Your task to perform on an android device: turn on airplane mode Image 0: 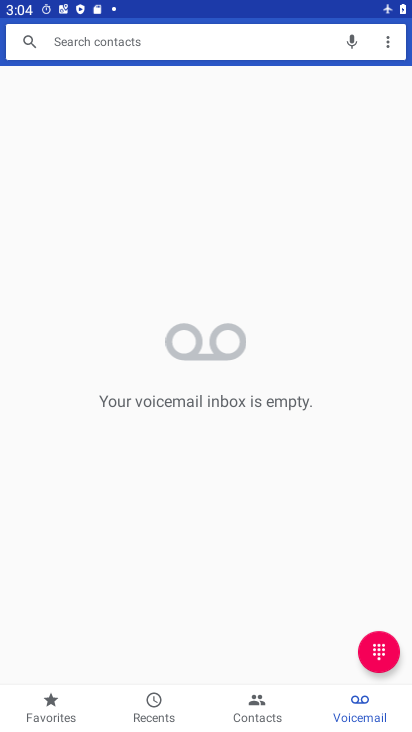
Step 0: press home button
Your task to perform on an android device: turn on airplane mode Image 1: 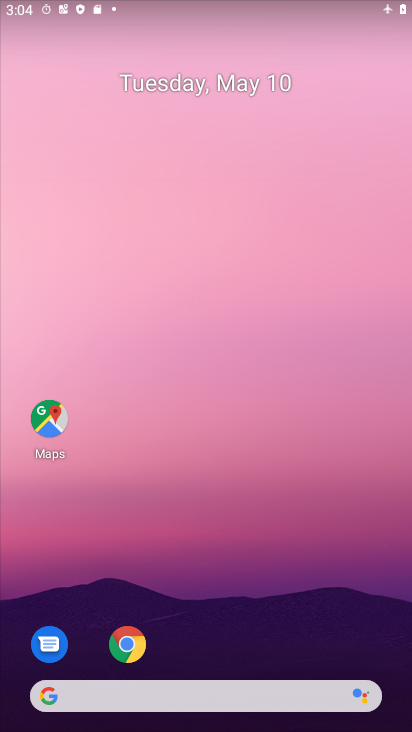
Step 1: task complete